Your task to perform on an android device: Open Yahoo.com Image 0: 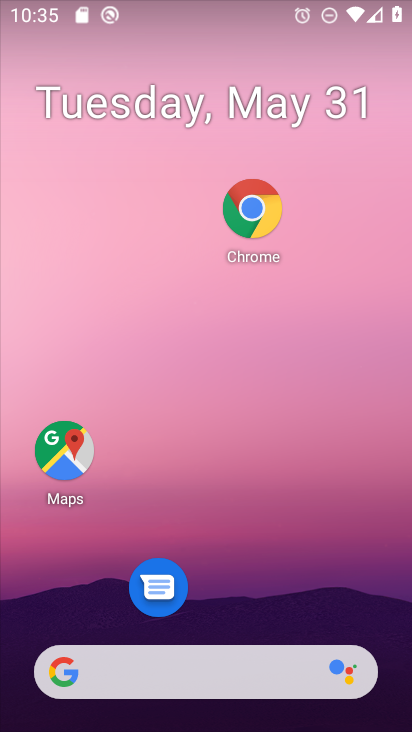
Step 0: click (246, 198)
Your task to perform on an android device: Open Yahoo.com Image 1: 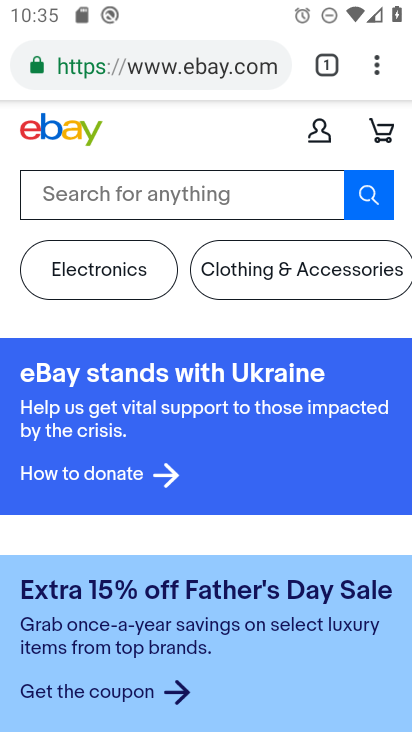
Step 1: click (327, 58)
Your task to perform on an android device: Open Yahoo.com Image 2: 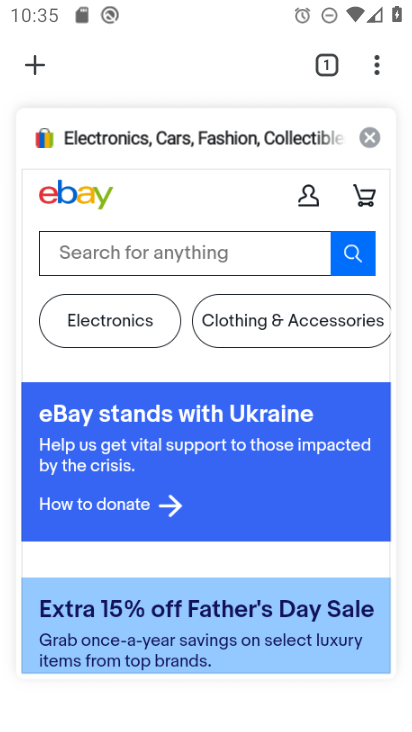
Step 2: click (369, 132)
Your task to perform on an android device: Open Yahoo.com Image 3: 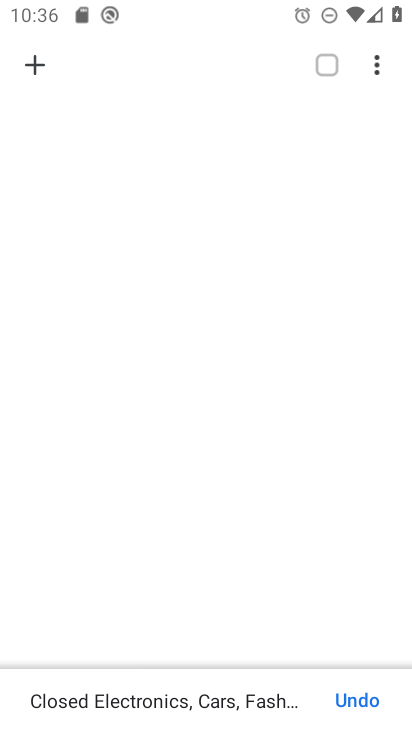
Step 3: click (40, 67)
Your task to perform on an android device: Open Yahoo.com Image 4: 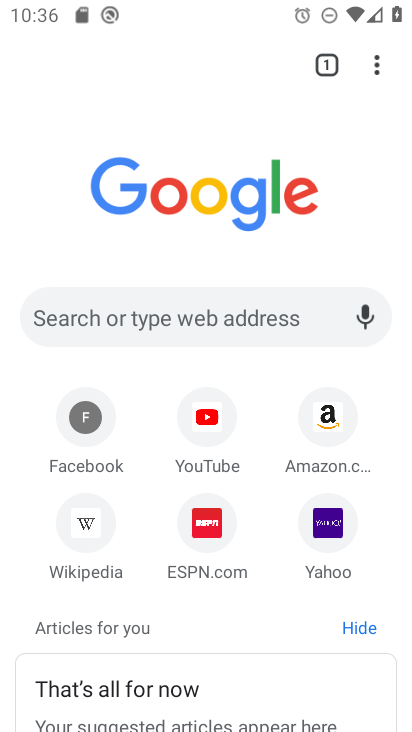
Step 4: click (323, 517)
Your task to perform on an android device: Open Yahoo.com Image 5: 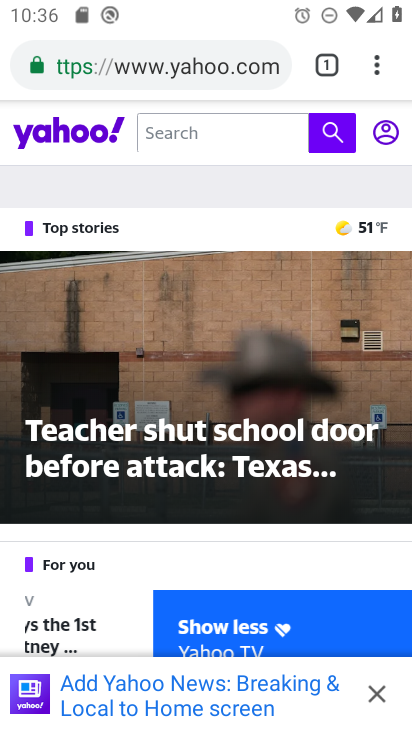
Step 5: click (376, 691)
Your task to perform on an android device: Open Yahoo.com Image 6: 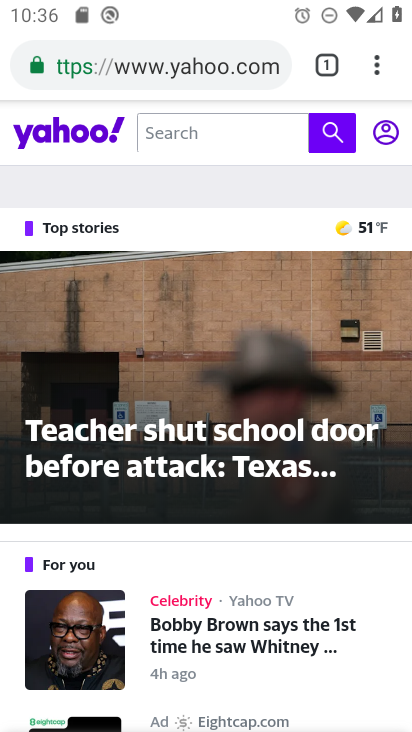
Step 6: task complete